Your task to perform on an android device: Go to Google maps Image 0: 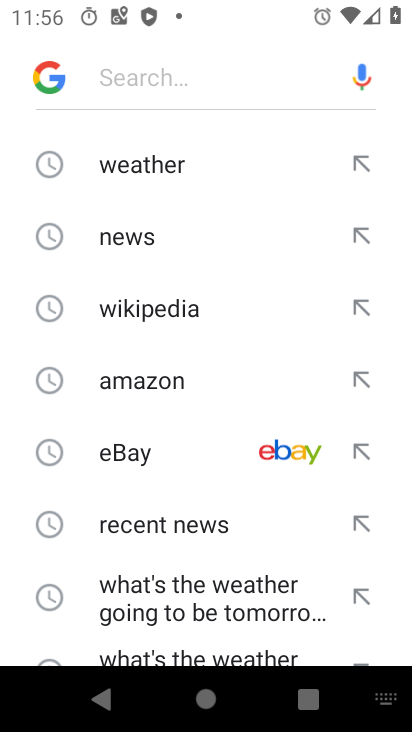
Step 0: press home button
Your task to perform on an android device: Go to Google maps Image 1: 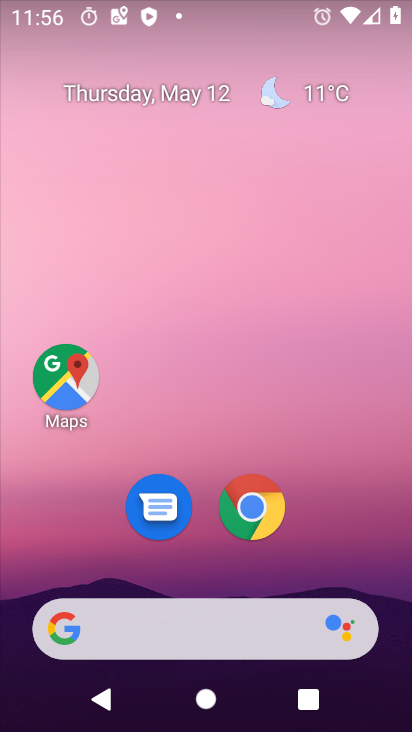
Step 1: click (60, 378)
Your task to perform on an android device: Go to Google maps Image 2: 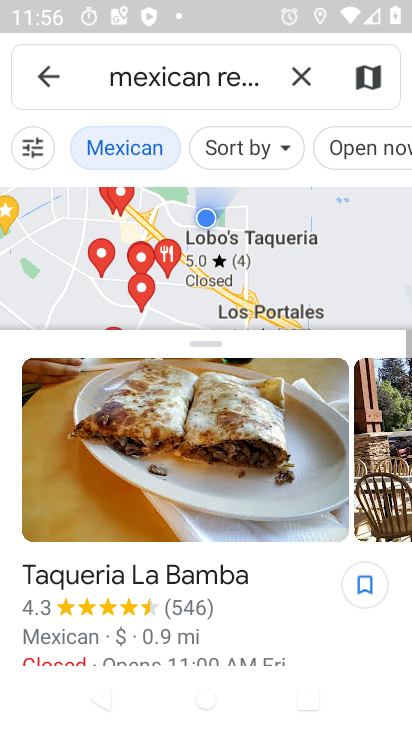
Step 2: click (59, 67)
Your task to perform on an android device: Go to Google maps Image 3: 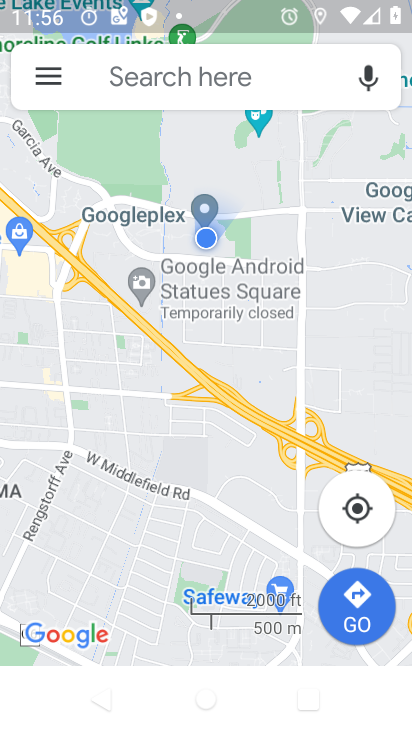
Step 3: task complete